Your task to perform on an android device: What's on my calendar today? Image 0: 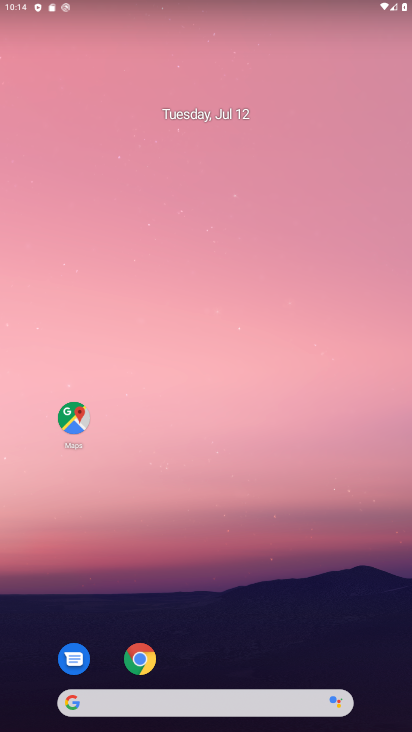
Step 0: drag from (199, 625) to (193, 48)
Your task to perform on an android device: What's on my calendar today? Image 1: 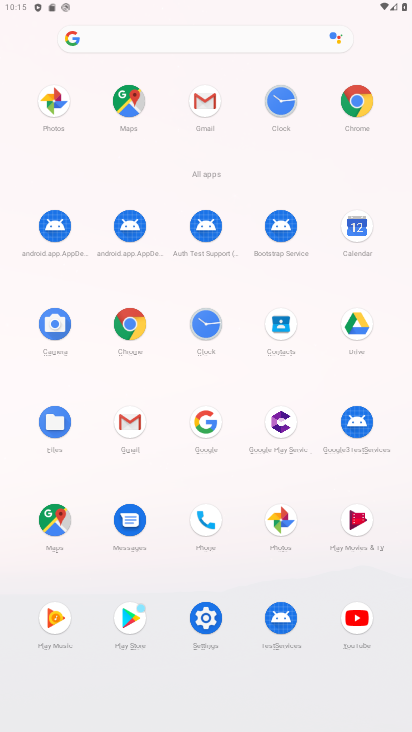
Step 1: click (364, 239)
Your task to perform on an android device: What's on my calendar today? Image 2: 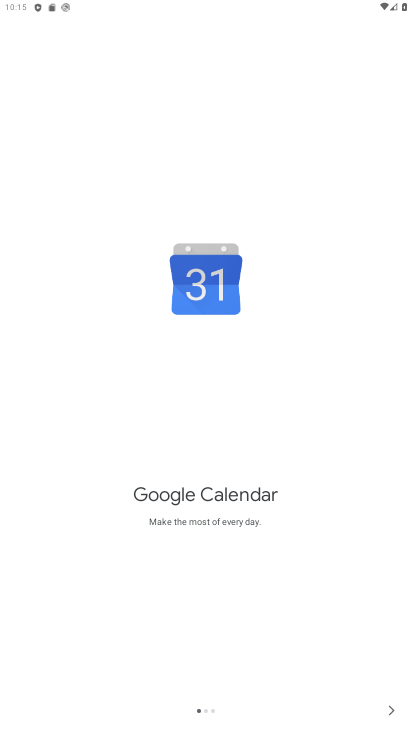
Step 2: click (395, 711)
Your task to perform on an android device: What's on my calendar today? Image 3: 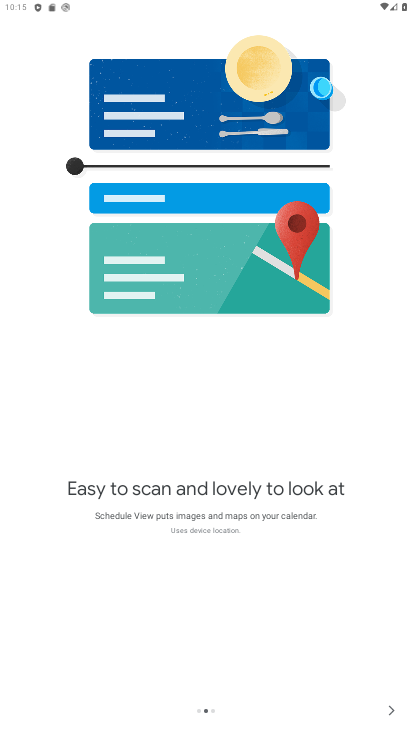
Step 3: click (395, 711)
Your task to perform on an android device: What's on my calendar today? Image 4: 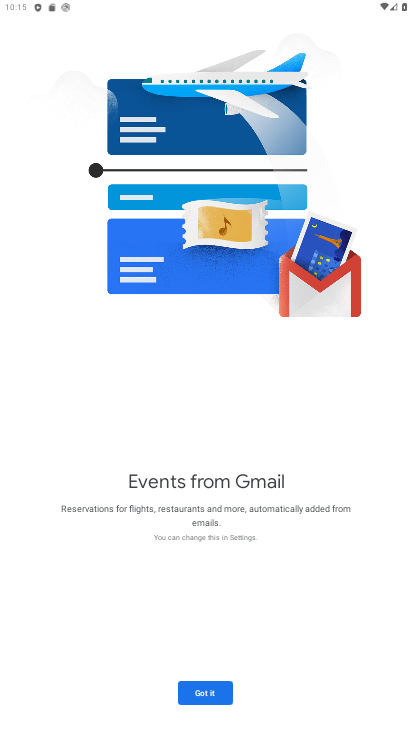
Step 4: click (196, 698)
Your task to perform on an android device: What's on my calendar today? Image 5: 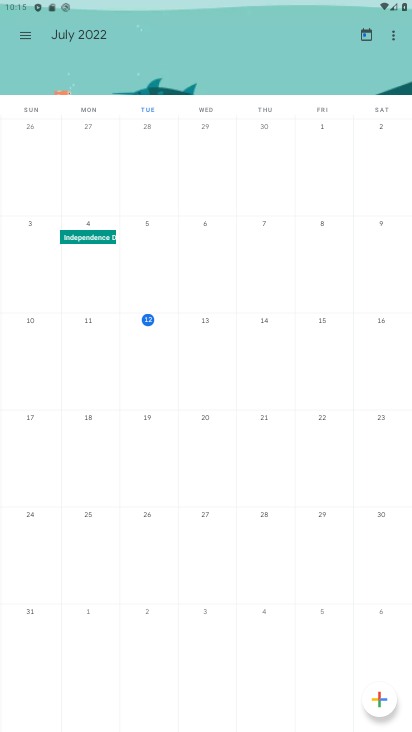
Step 5: task complete